Your task to perform on an android device: What's on my calendar today? Image 0: 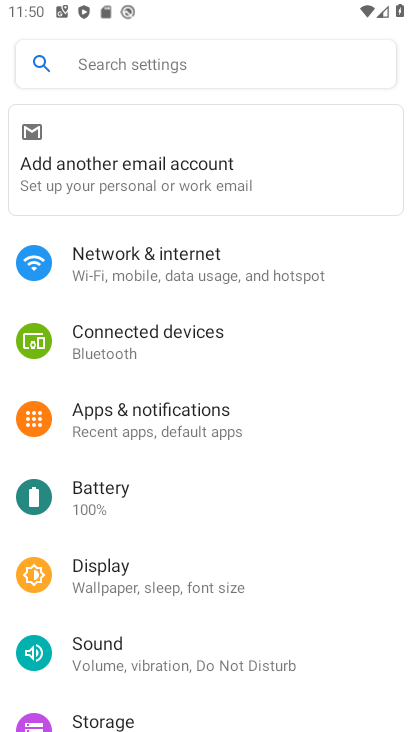
Step 0: press home button
Your task to perform on an android device: What's on my calendar today? Image 1: 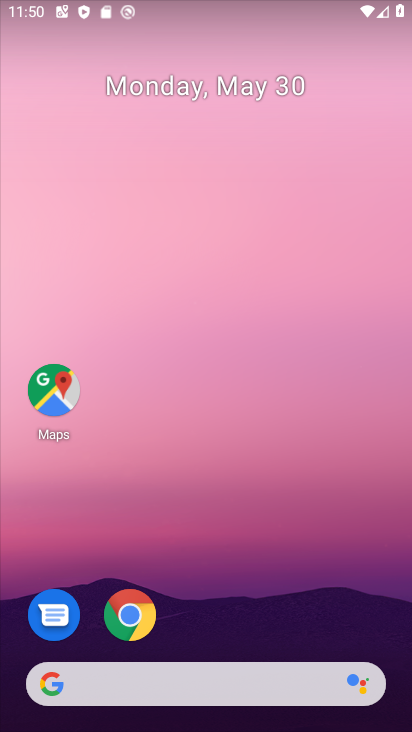
Step 1: drag from (195, 599) to (260, 343)
Your task to perform on an android device: What's on my calendar today? Image 2: 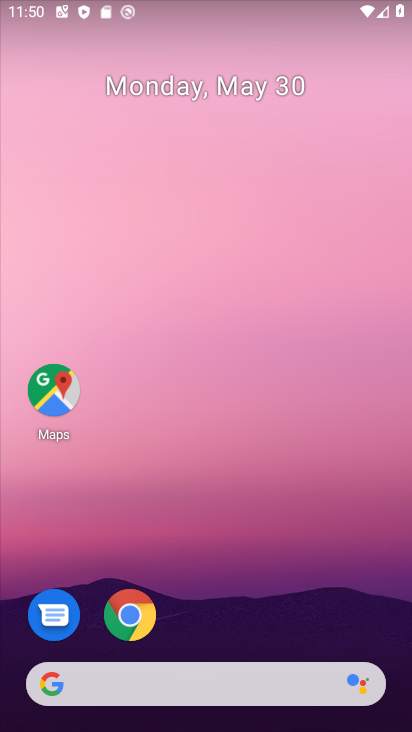
Step 2: drag from (231, 625) to (248, 90)
Your task to perform on an android device: What's on my calendar today? Image 3: 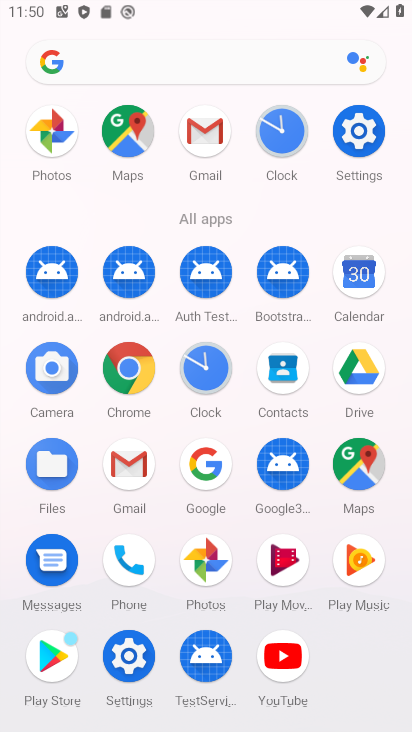
Step 3: click (369, 303)
Your task to perform on an android device: What's on my calendar today? Image 4: 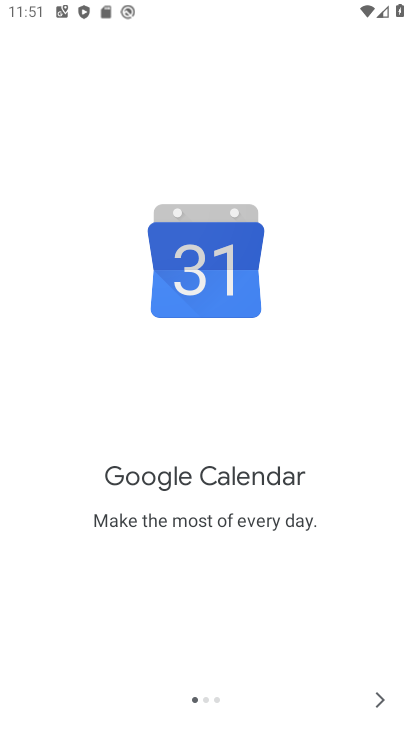
Step 4: click (393, 704)
Your task to perform on an android device: What's on my calendar today? Image 5: 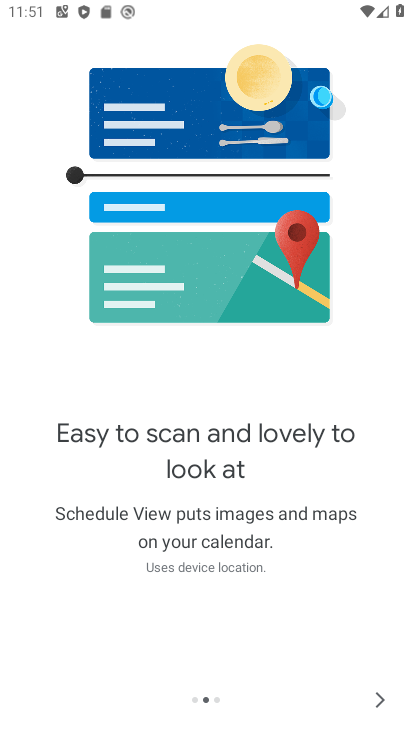
Step 5: click (390, 703)
Your task to perform on an android device: What's on my calendar today? Image 6: 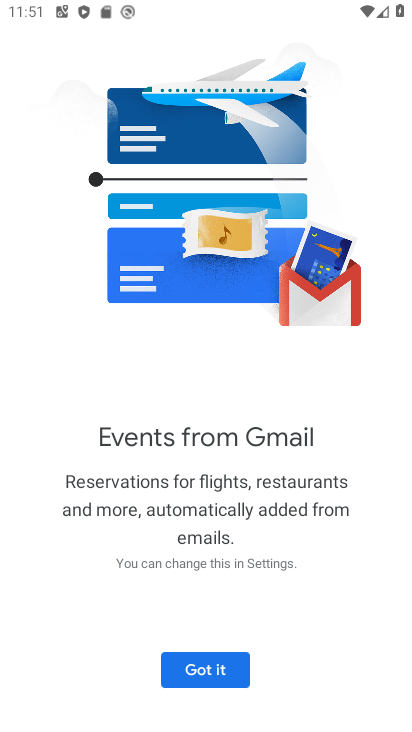
Step 6: click (198, 664)
Your task to perform on an android device: What's on my calendar today? Image 7: 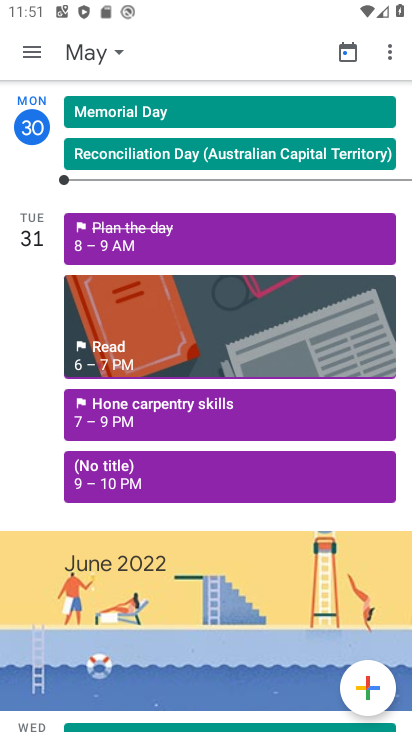
Step 7: click (30, 58)
Your task to perform on an android device: What's on my calendar today? Image 8: 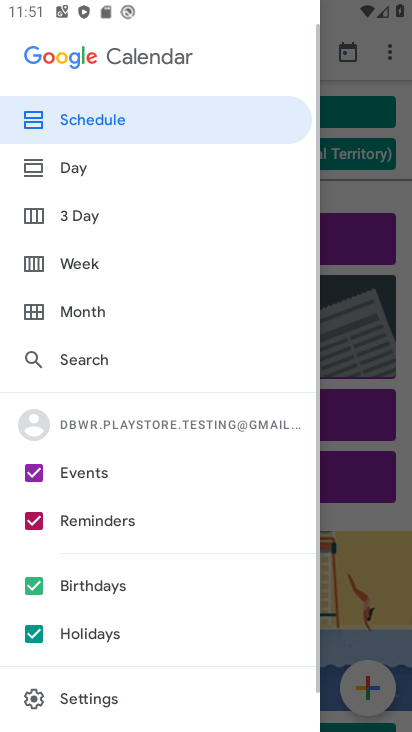
Step 8: click (77, 184)
Your task to perform on an android device: What's on my calendar today? Image 9: 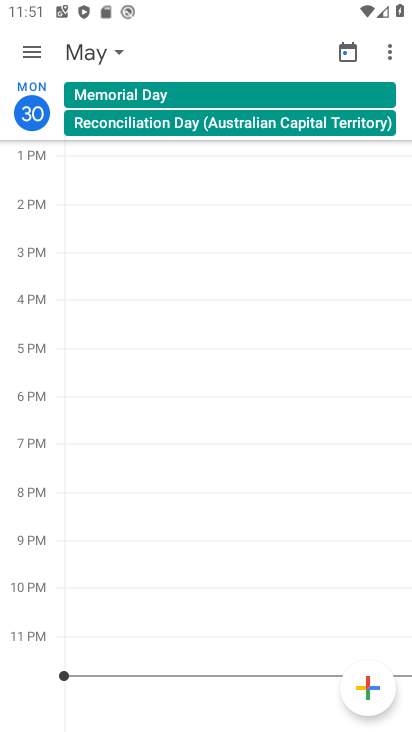
Step 9: task complete